Your task to perform on an android device: Open Reddit.com Image 0: 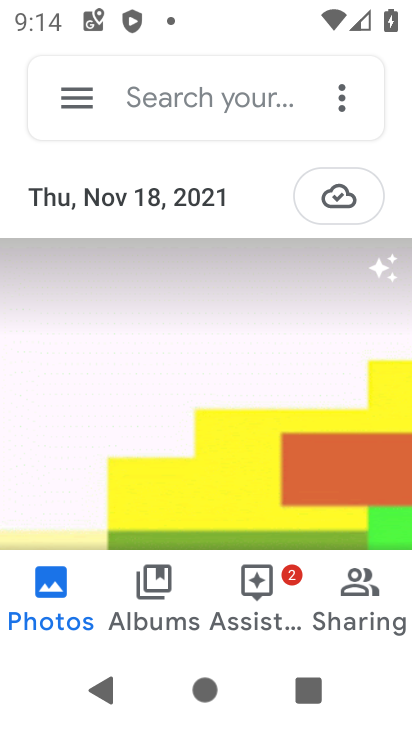
Step 0: press home button
Your task to perform on an android device: Open Reddit.com Image 1: 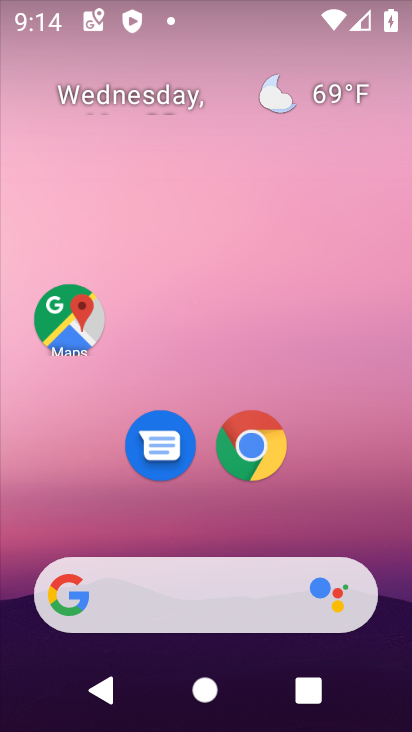
Step 1: click (258, 442)
Your task to perform on an android device: Open Reddit.com Image 2: 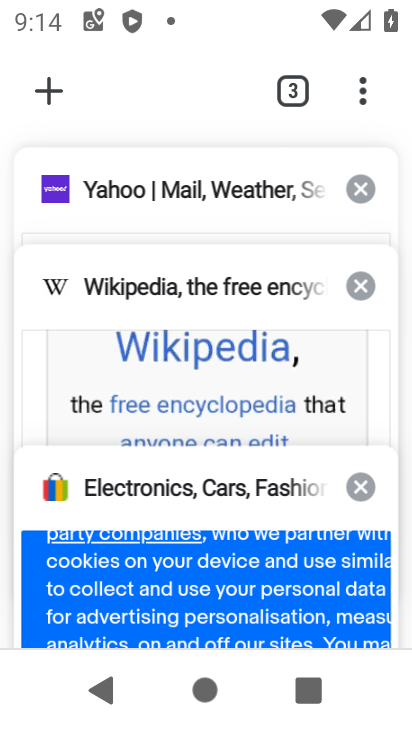
Step 2: click (361, 478)
Your task to perform on an android device: Open Reddit.com Image 3: 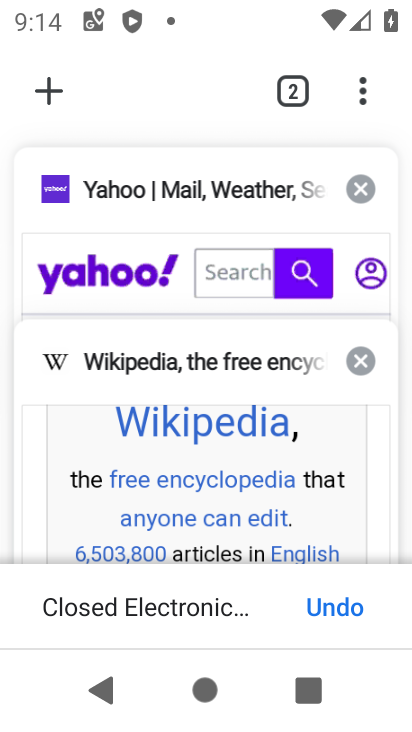
Step 3: click (358, 354)
Your task to perform on an android device: Open Reddit.com Image 4: 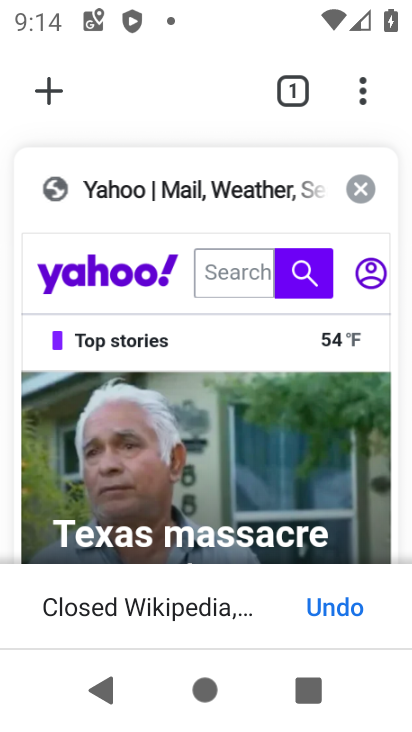
Step 4: click (360, 182)
Your task to perform on an android device: Open Reddit.com Image 5: 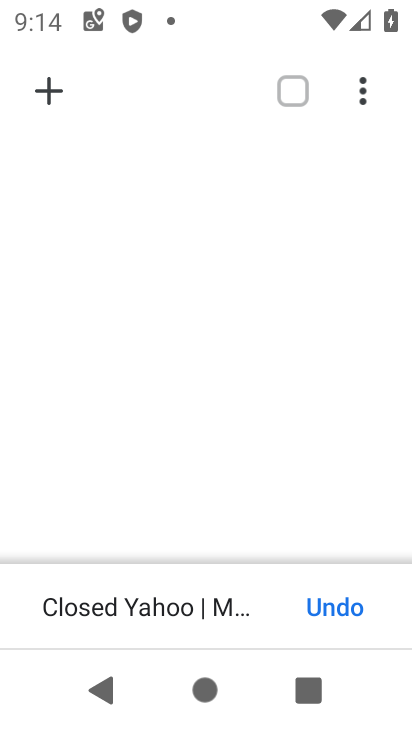
Step 5: click (47, 88)
Your task to perform on an android device: Open Reddit.com Image 6: 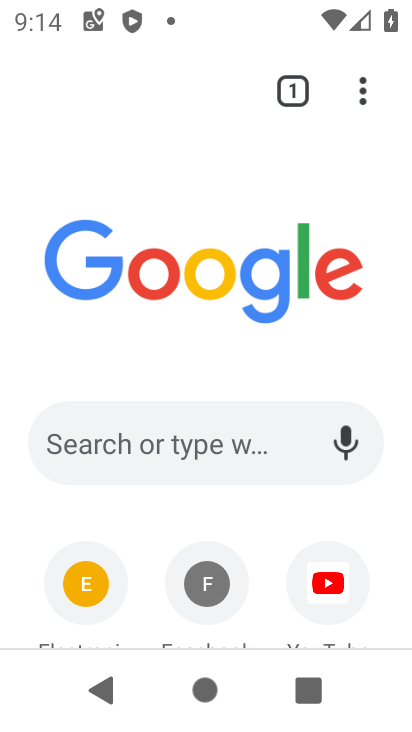
Step 6: click (205, 436)
Your task to perform on an android device: Open Reddit.com Image 7: 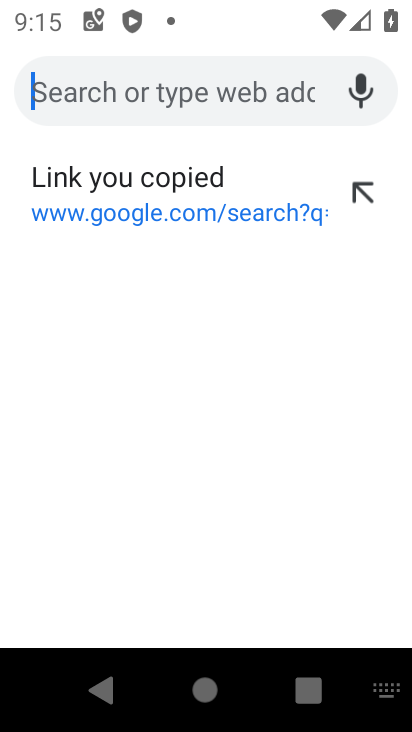
Step 7: type "Reddit.com"
Your task to perform on an android device: Open Reddit.com Image 8: 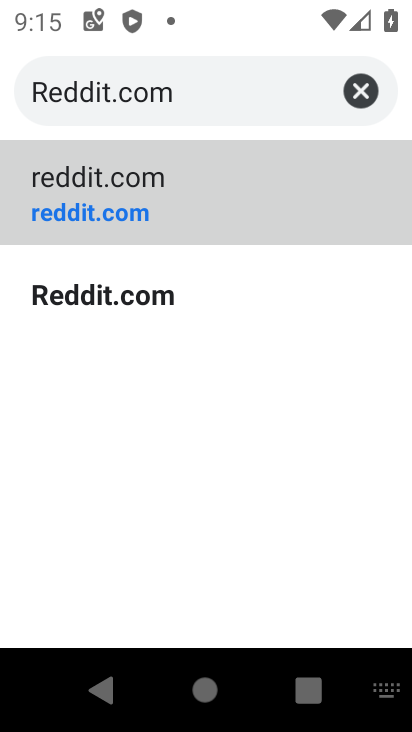
Step 8: click (114, 211)
Your task to perform on an android device: Open Reddit.com Image 9: 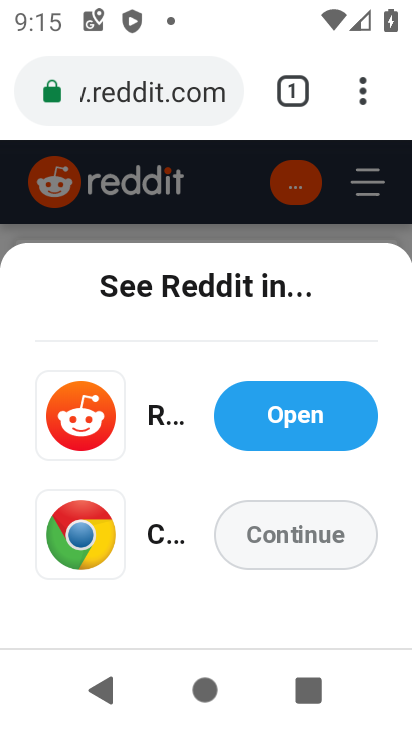
Step 9: task complete